Your task to perform on an android device: delete the emails in spam in the gmail app Image 0: 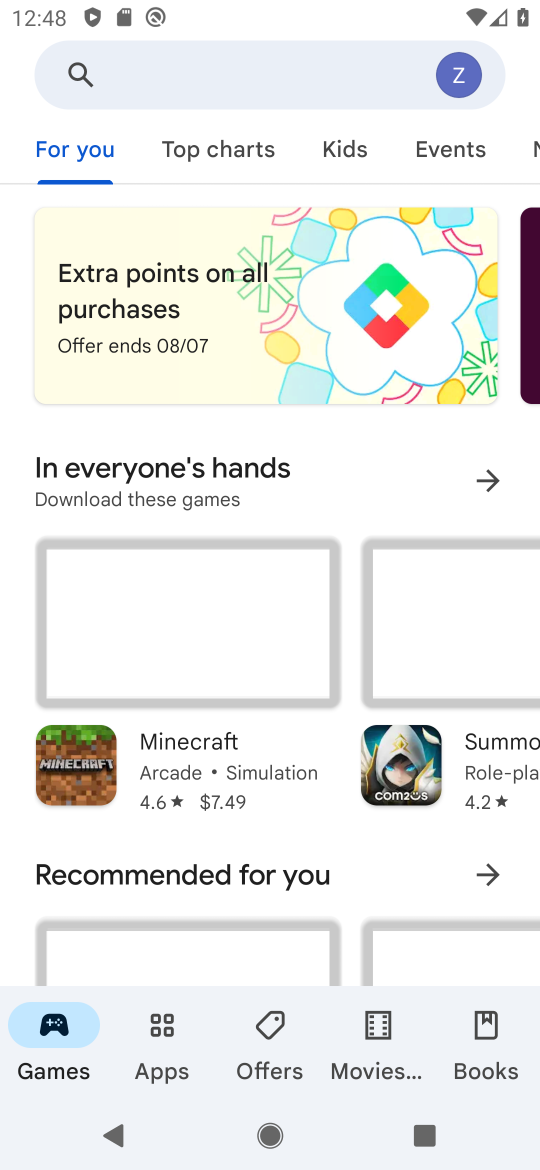
Step 0: press home button
Your task to perform on an android device: delete the emails in spam in the gmail app Image 1: 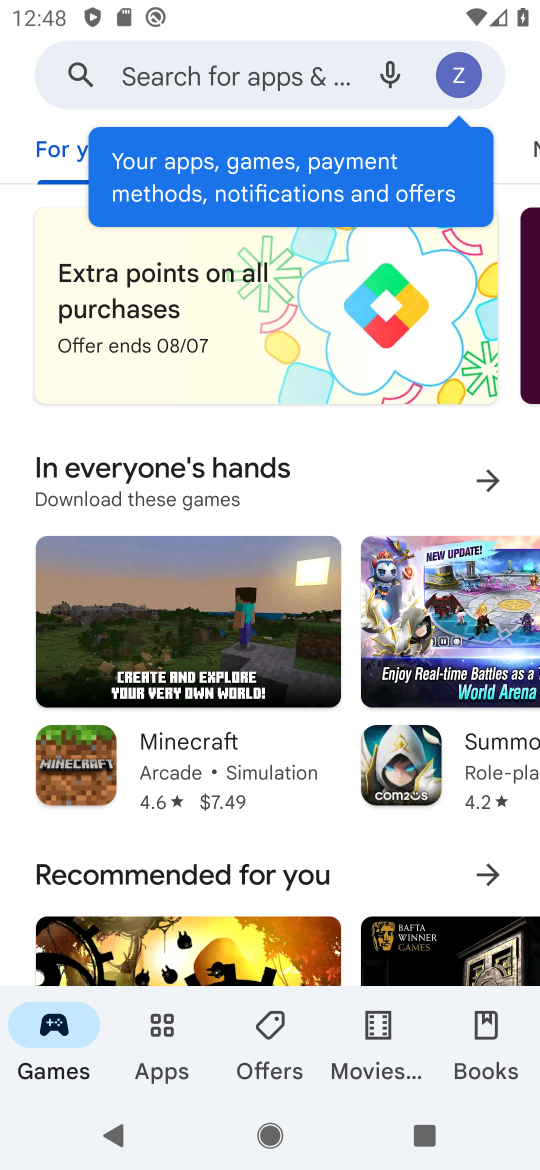
Step 1: press home button
Your task to perform on an android device: delete the emails in spam in the gmail app Image 2: 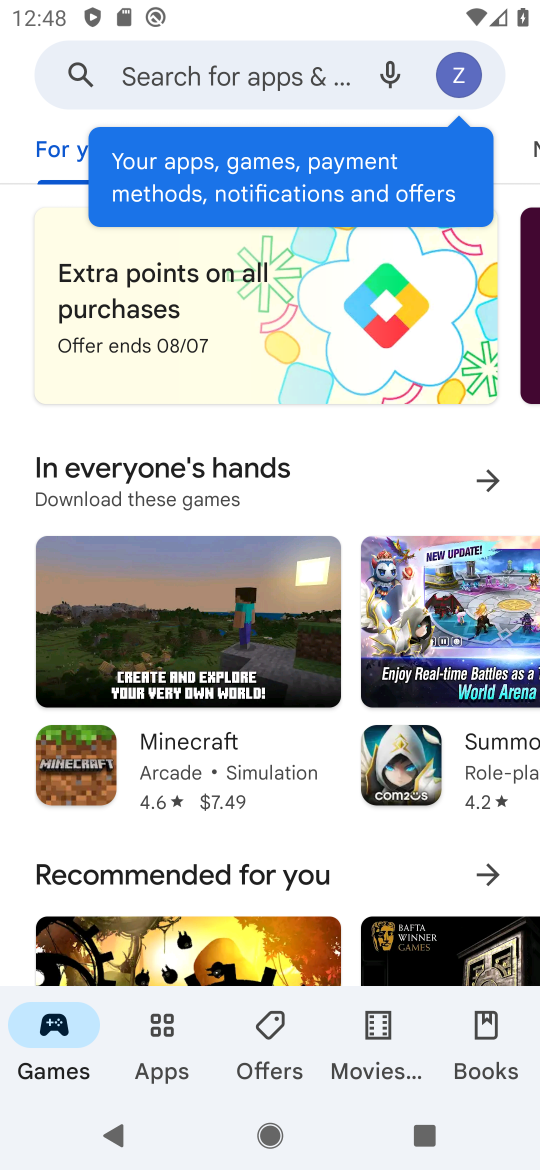
Step 2: click (408, 298)
Your task to perform on an android device: delete the emails in spam in the gmail app Image 3: 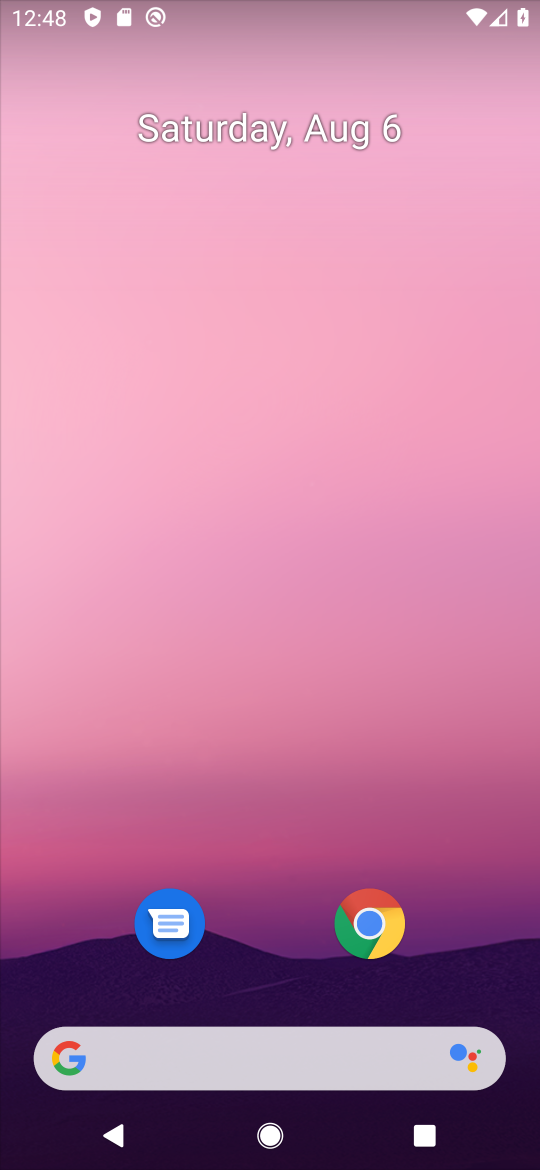
Step 3: drag from (294, 965) to (303, 273)
Your task to perform on an android device: delete the emails in spam in the gmail app Image 4: 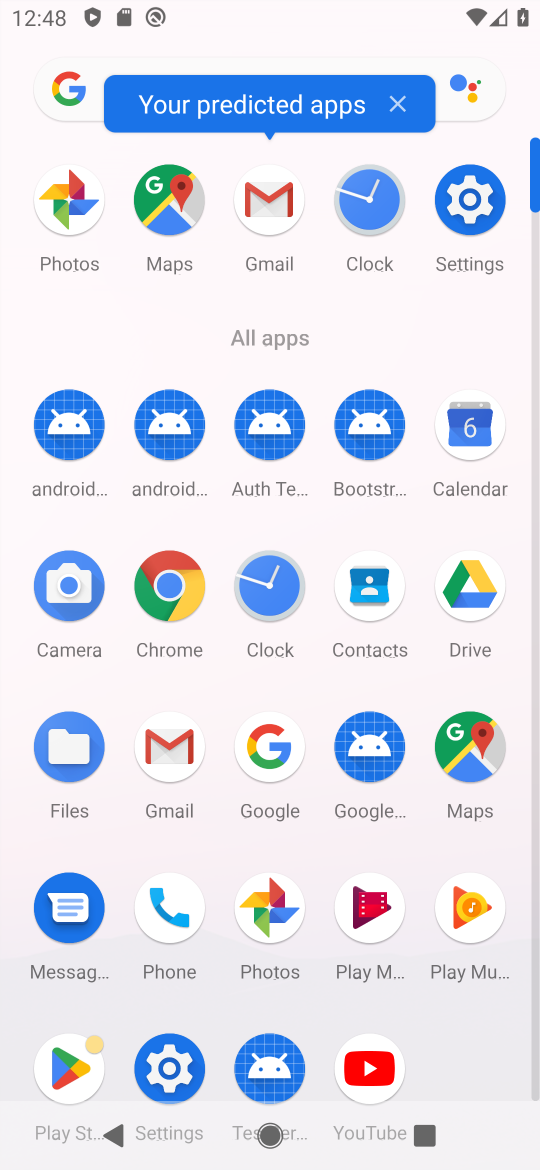
Step 4: drag from (310, 942) to (326, 339)
Your task to perform on an android device: delete the emails in spam in the gmail app Image 5: 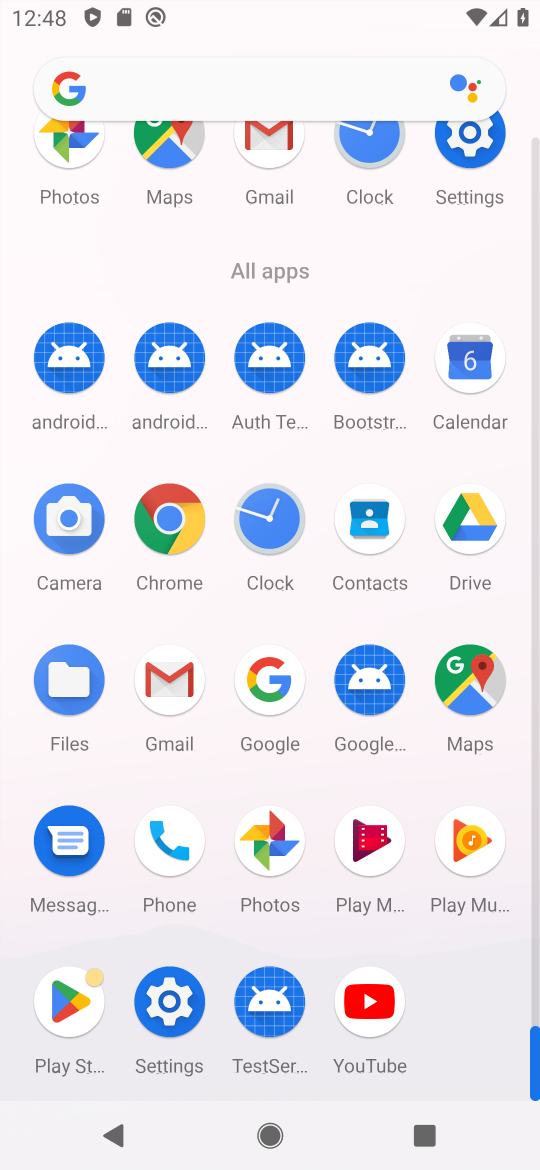
Step 5: drag from (326, 910) to (304, 261)
Your task to perform on an android device: delete the emails in spam in the gmail app Image 6: 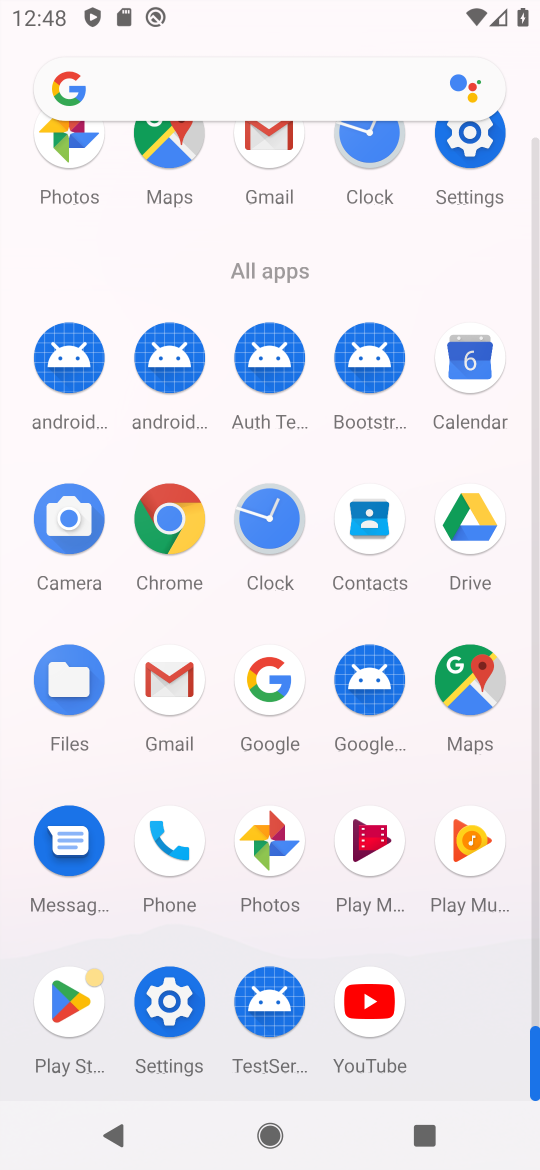
Step 6: click (168, 684)
Your task to perform on an android device: delete the emails in spam in the gmail app Image 7: 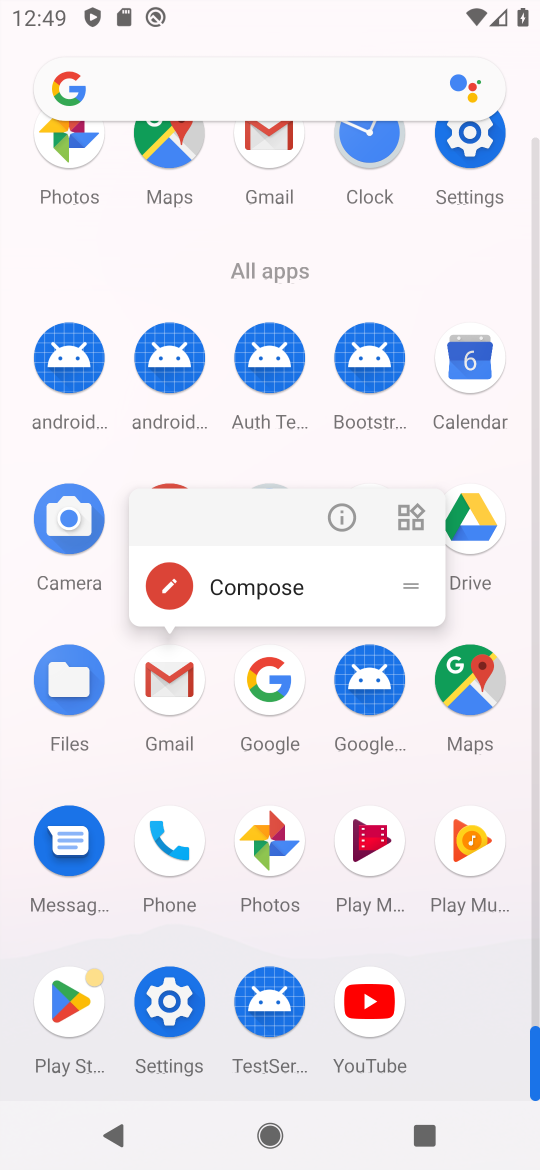
Step 7: click (341, 515)
Your task to perform on an android device: delete the emails in spam in the gmail app Image 8: 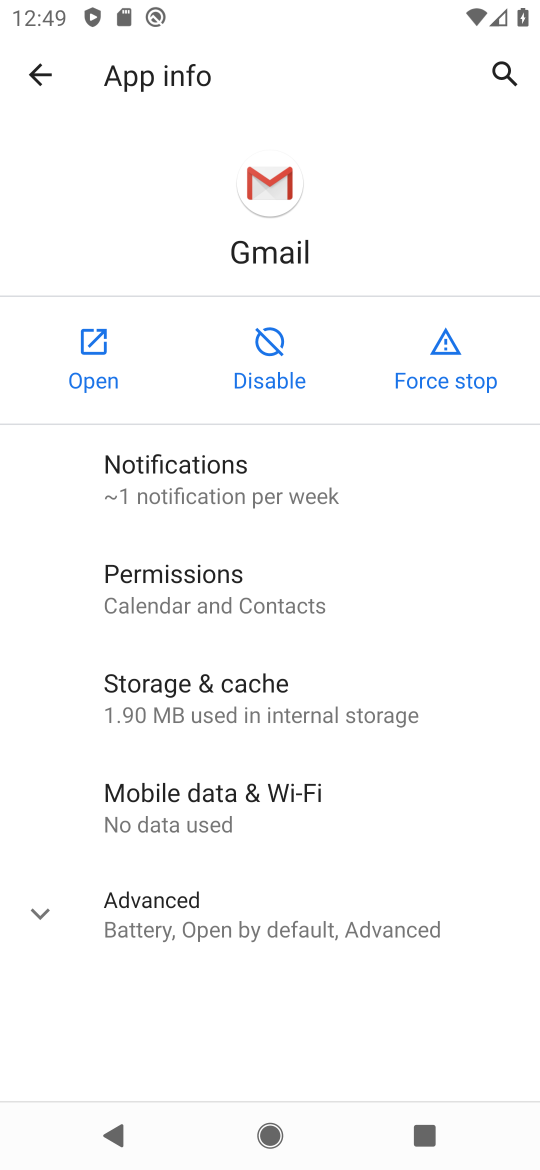
Step 8: click (85, 353)
Your task to perform on an android device: delete the emails in spam in the gmail app Image 9: 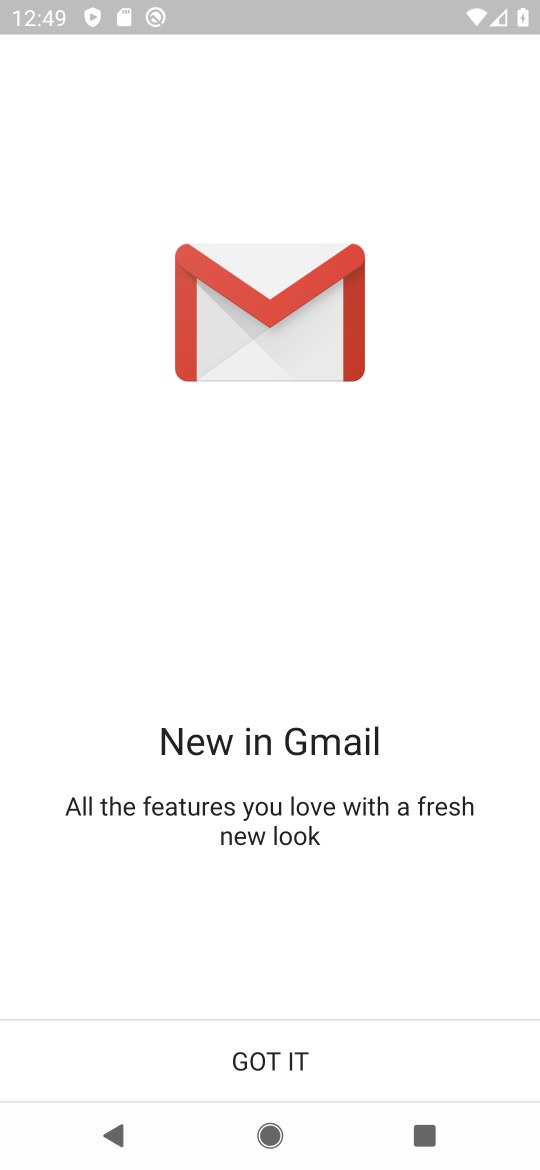
Step 9: click (290, 1072)
Your task to perform on an android device: delete the emails in spam in the gmail app Image 10: 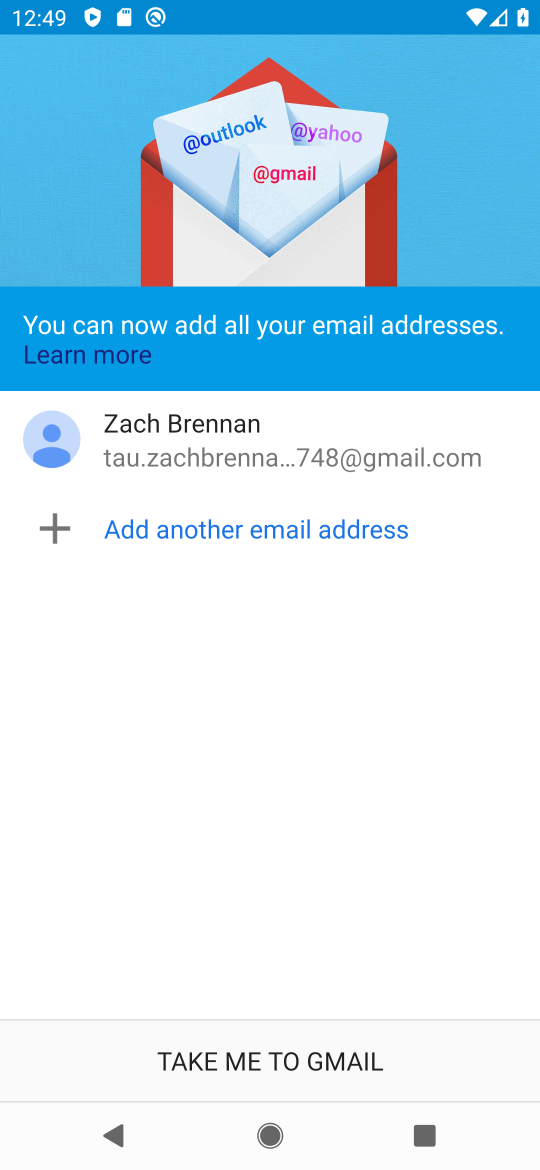
Step 10: click (262, 1056)
Your task to perform on an android device: delete the emails in spam in the gmail app Image 11: 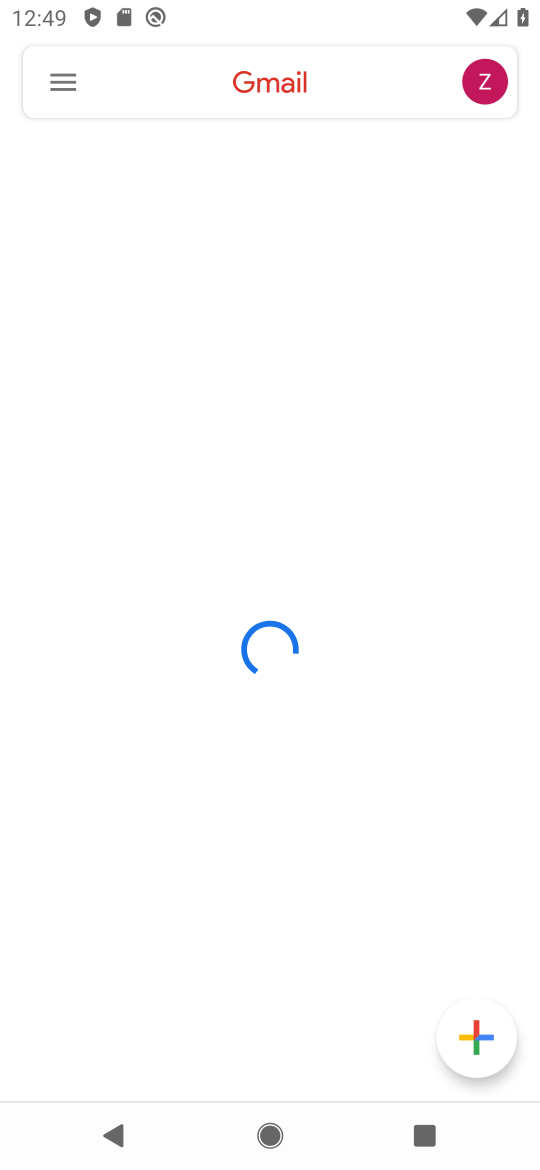
Step 11: click (73, 89)
Your task to perform on an android device: delete the emails in spam in the gmail app Image 12: 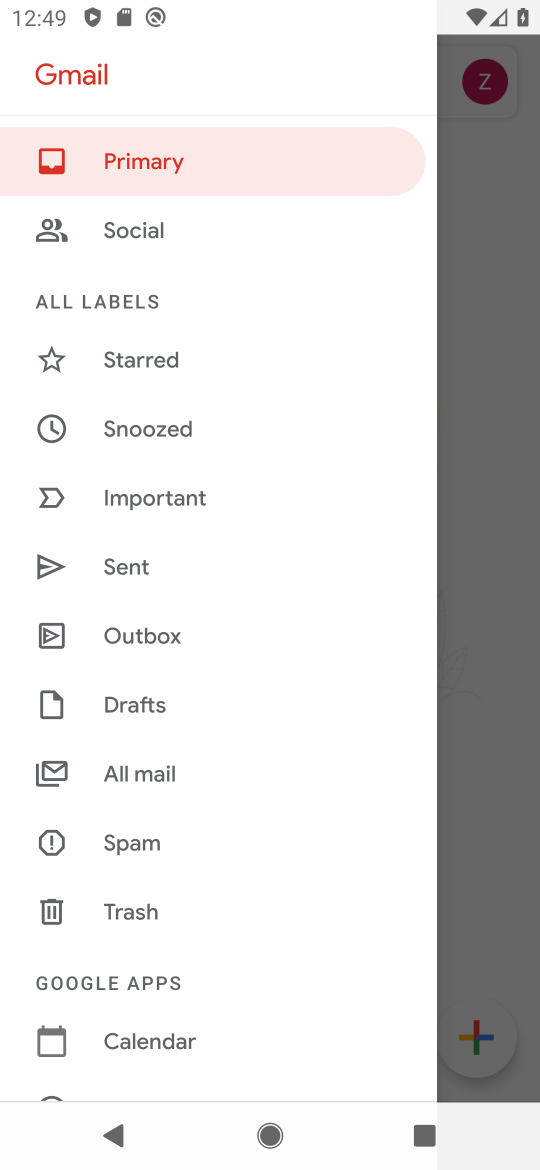
Step 12: click (147, 850)
Your task to perform on an android device: delete the emails in spam in the gmail app Image 13: 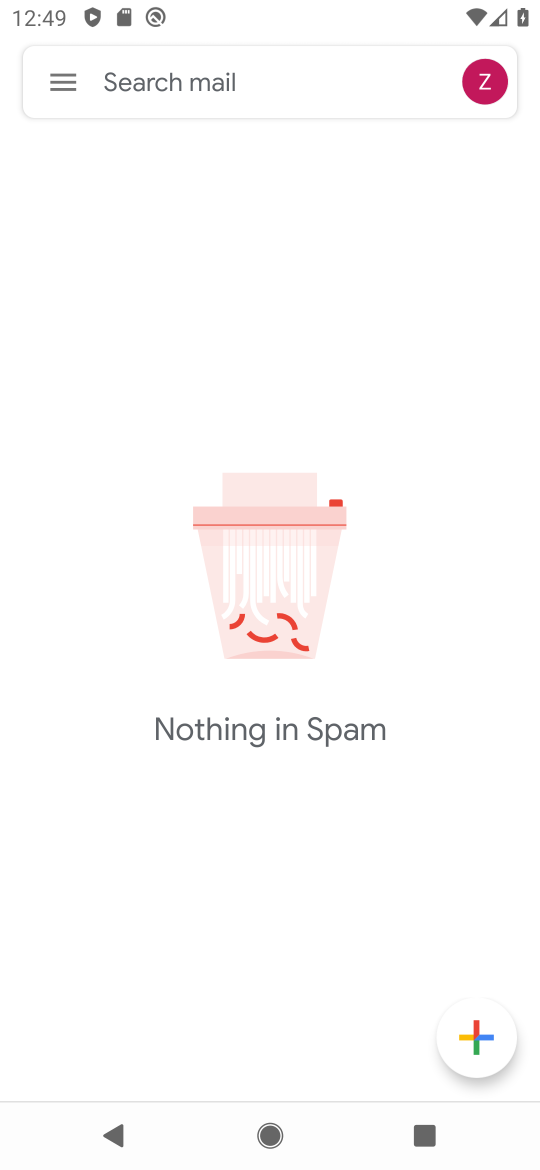
Step 13: click (84, 97)
Your task to perform on an android device: delete the emails in spam in the gmail app Image 14: 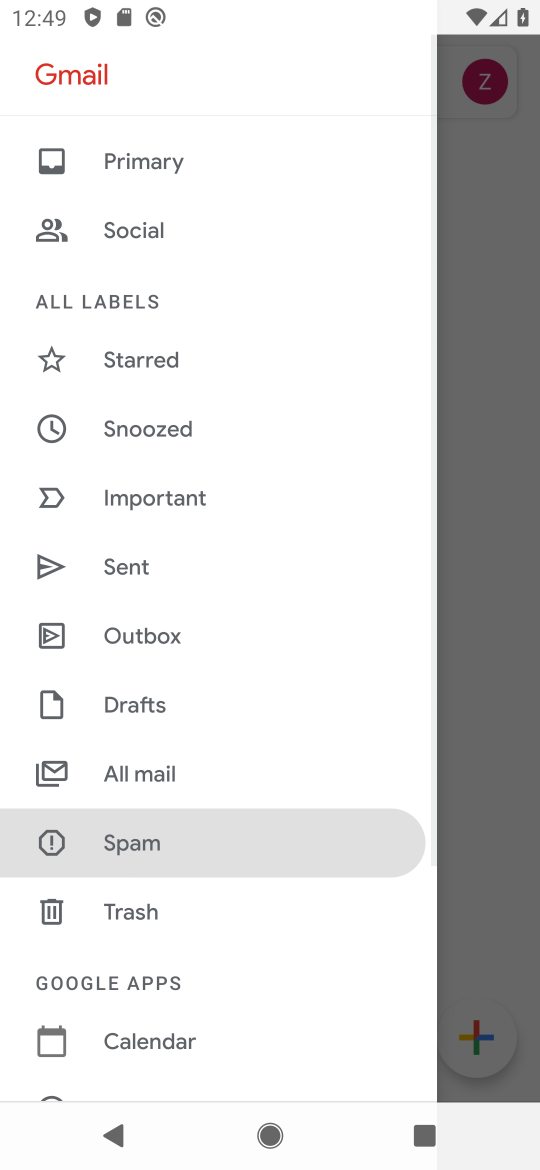
Step 14: click (123, 842)
Your task to perform on an android device: delete the emails in spam in the gmail app Image 15: 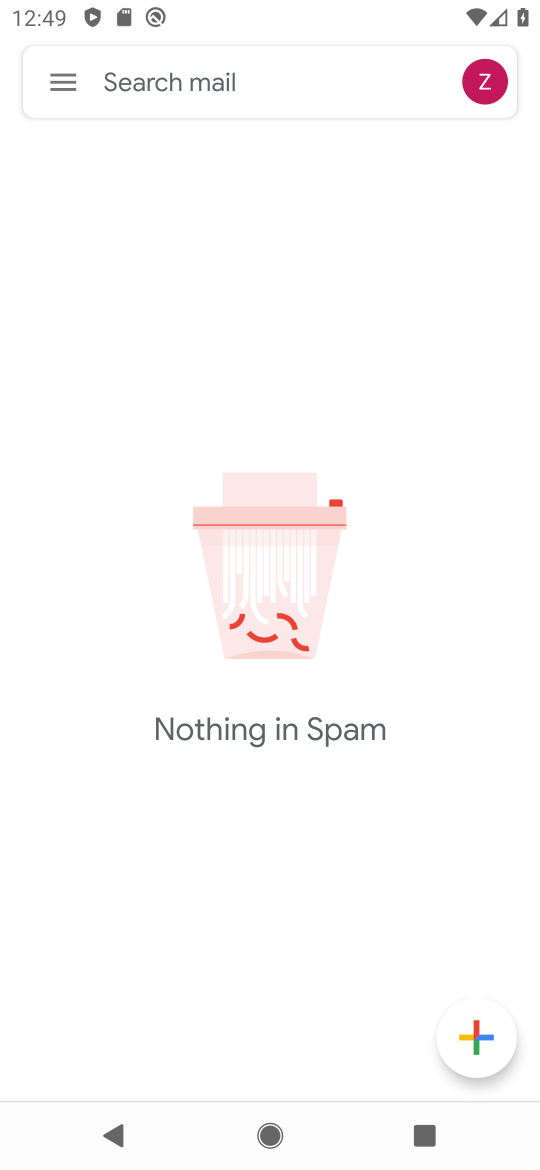
Step 15: click (479, 725)
Your task to perform on an android device: delete the emails in spam in the gmail app Image 16: 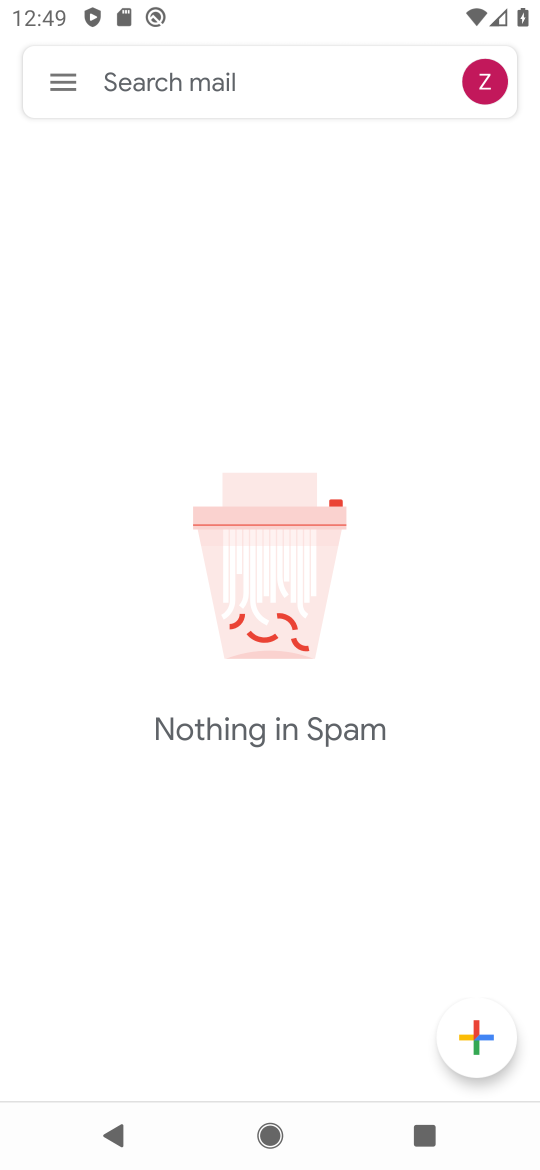
Step 16: click (298, 513)
Your task to perform on an android device: delete the emails in spam in the gmail app Image 17: 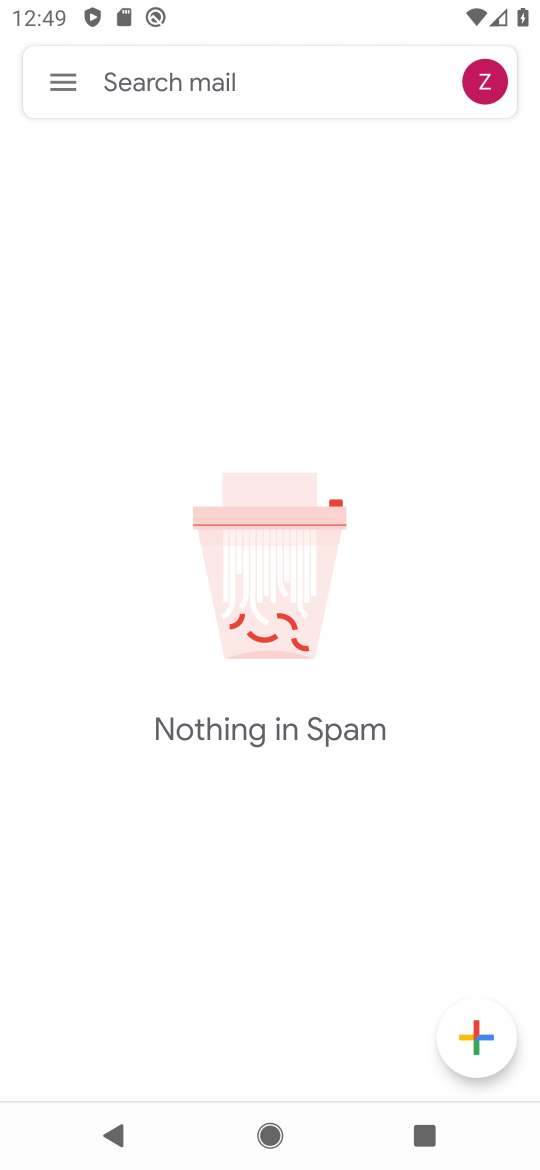
Step 17: drag from (401, 701) to (409, 582)
Your task to perform on an android device: delete the emails in spam in the gmail app Image 18: 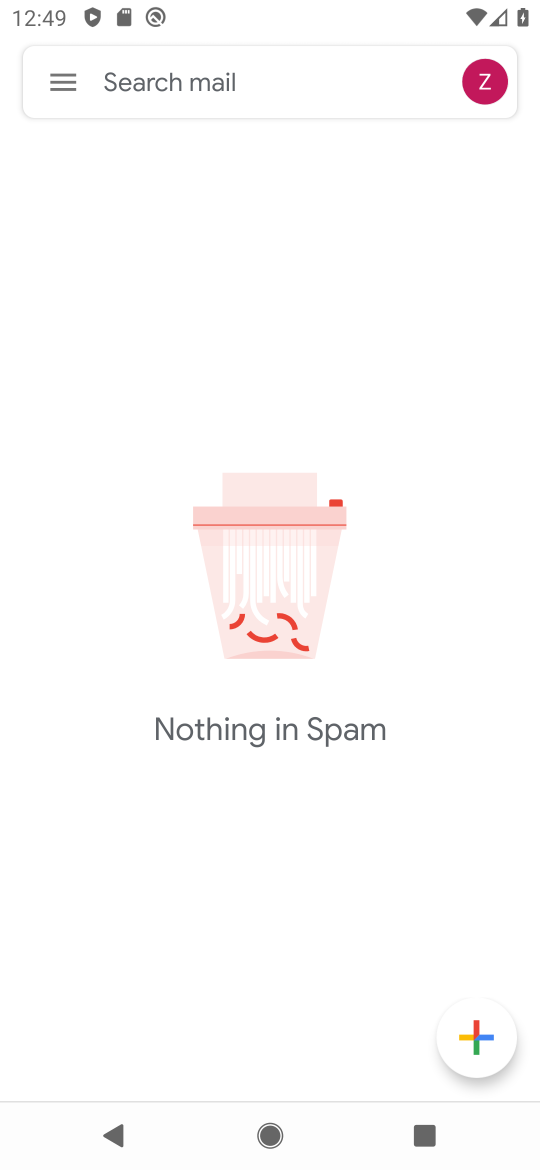
Step 18: drag from (444, 706) to (428, 491)
Your task to perform on an android device: delete the emails in spam in the gmail app Image 19: 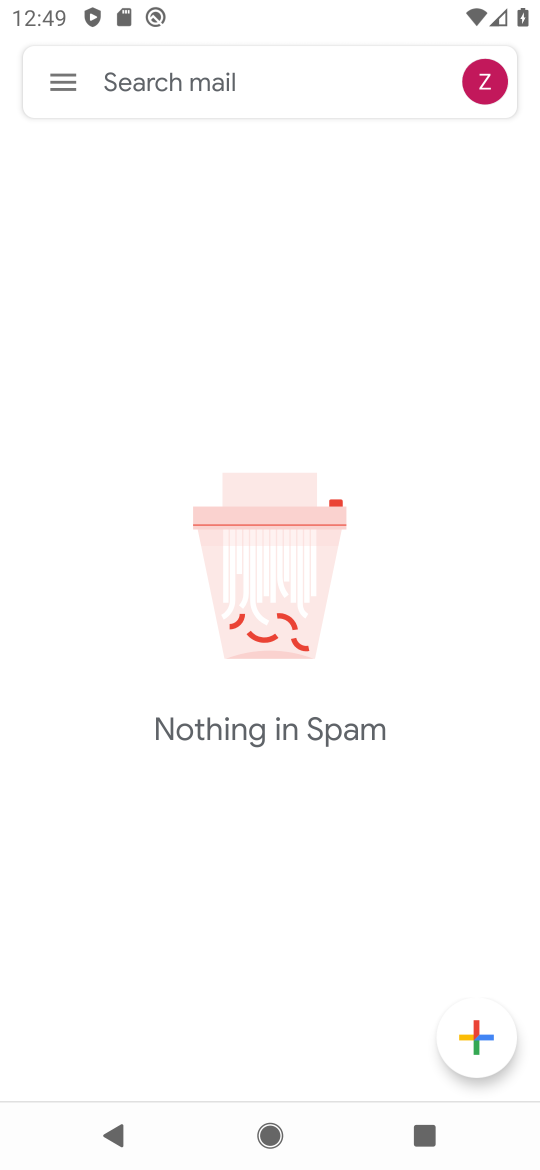
Step 19: drag from (406, 784) to (418, 438)
Your task to perform on an android device: delete the emails in spam in the gmail app Image 20: 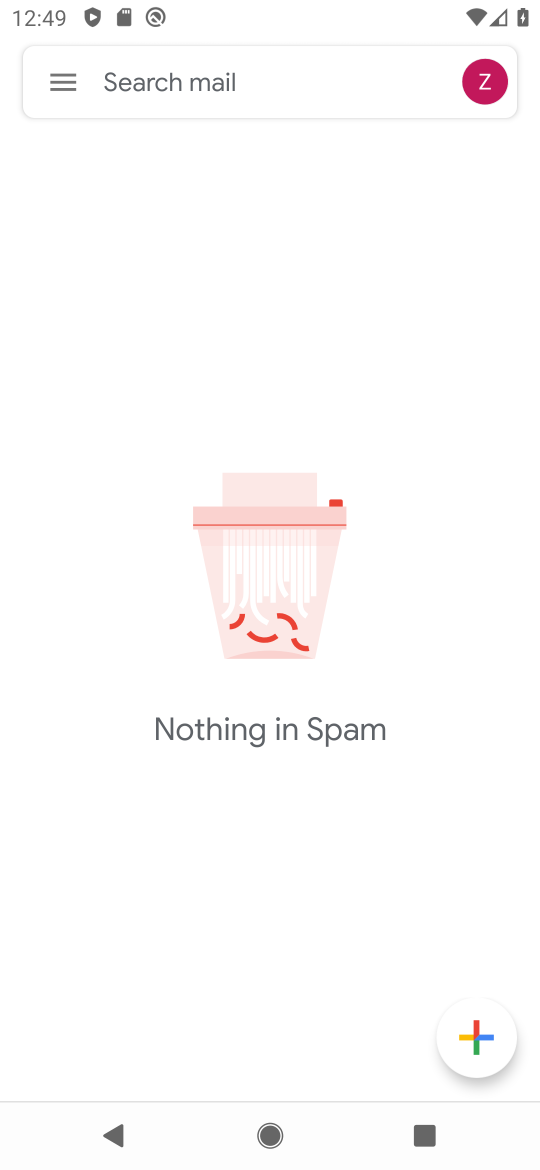
Step 20: drag from (134, 466) to (402, 222)
Your task to perform on an android device: delete the emails in spam in the gmail app Image 21: 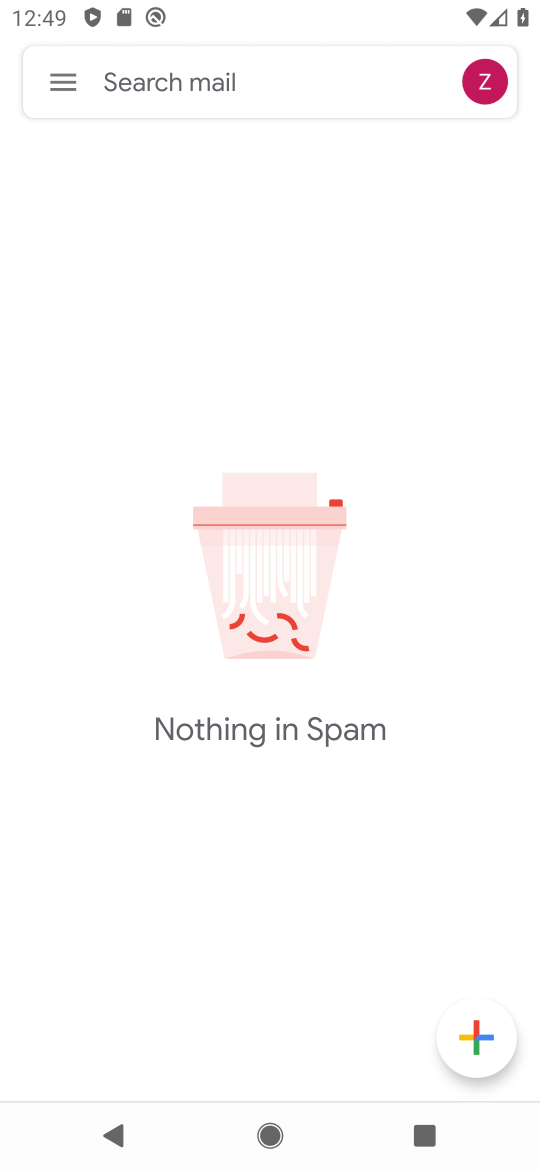
Step 21: drag from (254, 945) to (515, 272)
Your task to perform on an android device: delete the emails in spam in the gmail app Image 22: 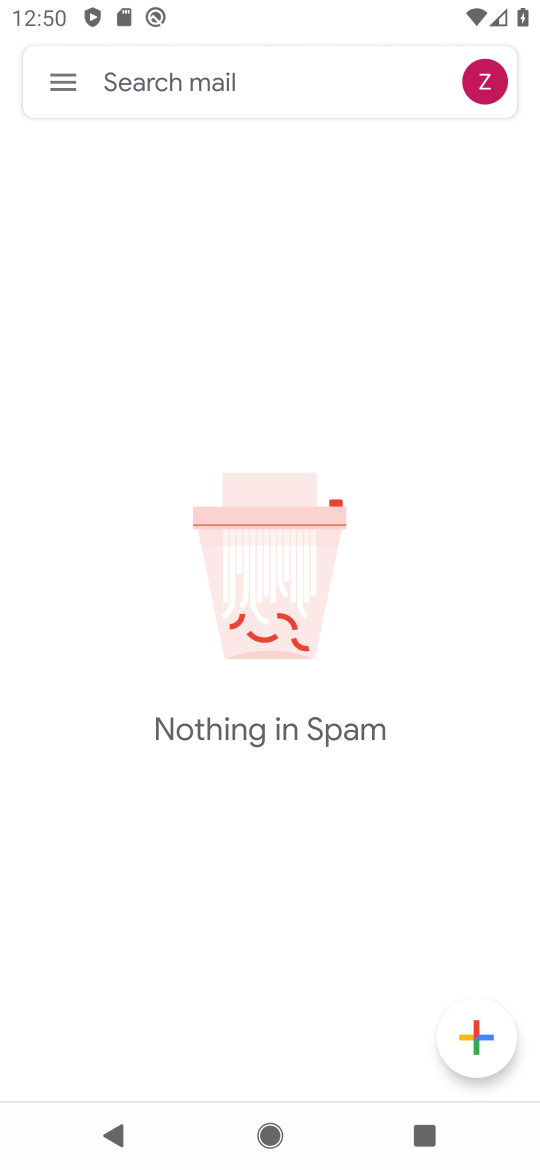
Step 22: drag from (321, 902) to (232, 460)
Your task to perform on an android device: delete the emails in spam in the gmail app Image 23: 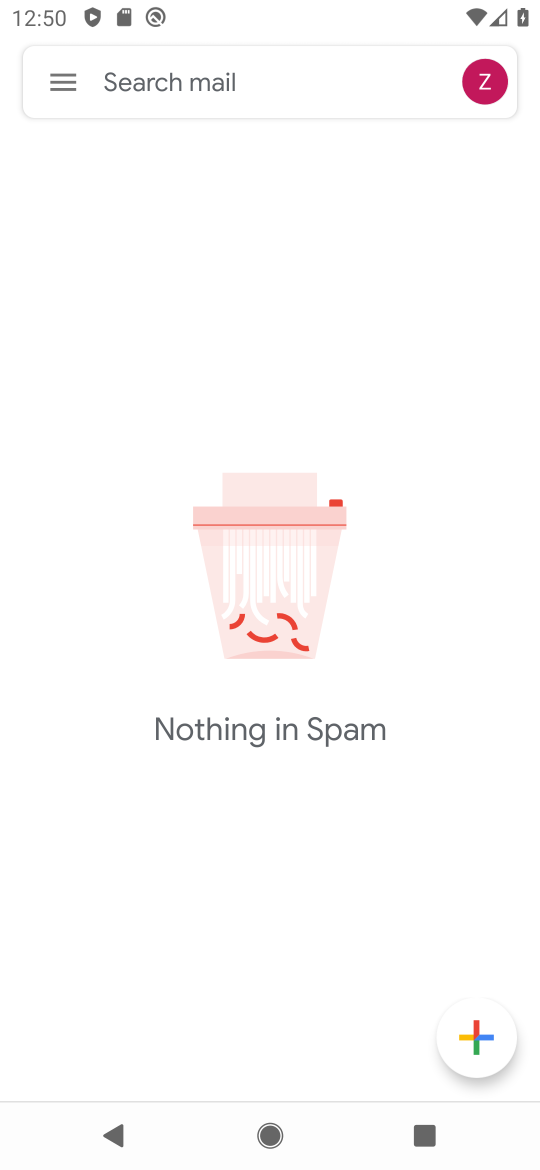
Step 23: drag from (360, 968) to (354, 385)
Your task to perform on an android device: delete the emails in spam in the gmail app Image 24: 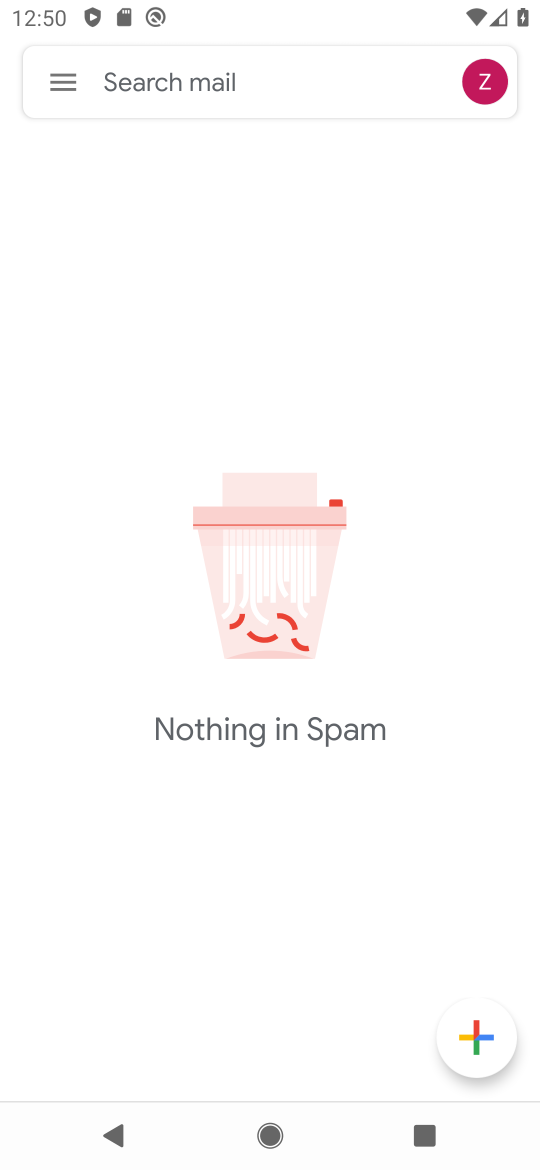
Step 24: click (300, 405)
Your task to perform on an android device: delete the emails in spam in the gmail app Image 25: 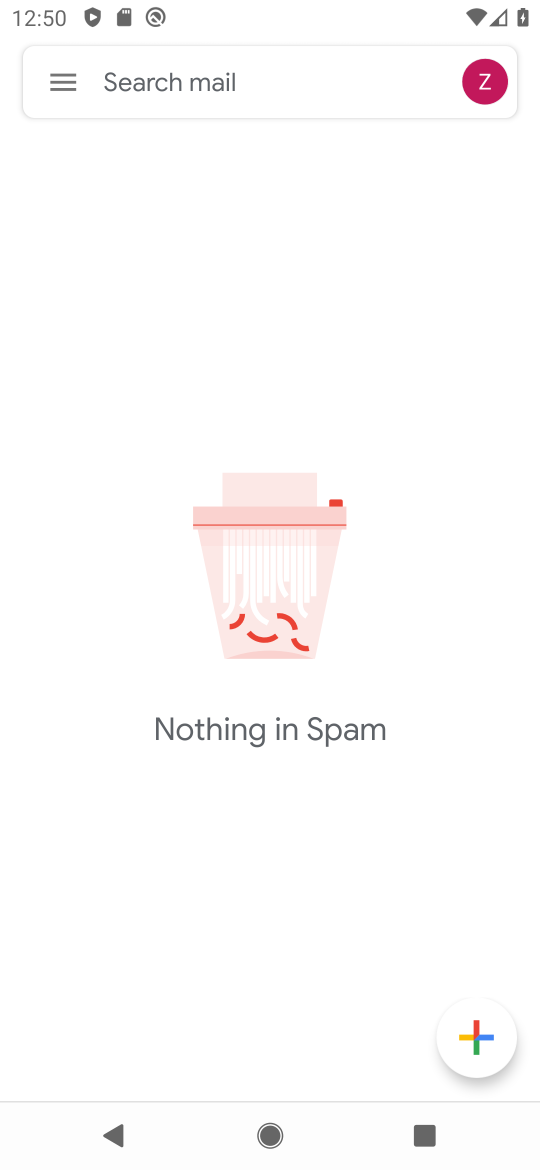
Step 25: click (53, 78)
Your task to perform on an android device: delete the emails in spam in the gmail app Image 26: 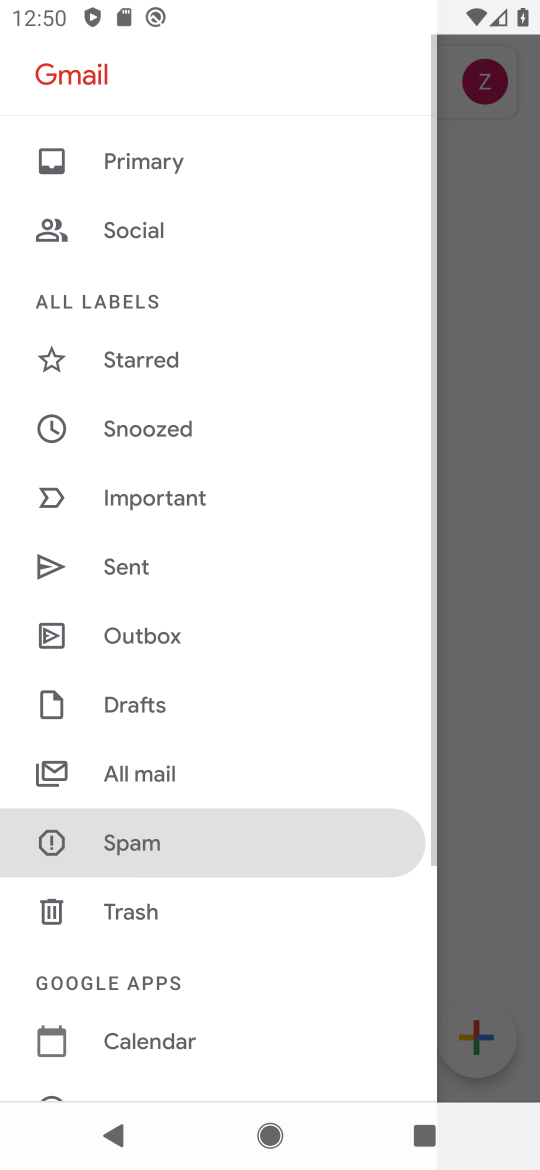
Step 26: drag from (259, 920) to (335, 523)
Your task to perform on an android device: delete the emails in spam in the gmail app Image 27: 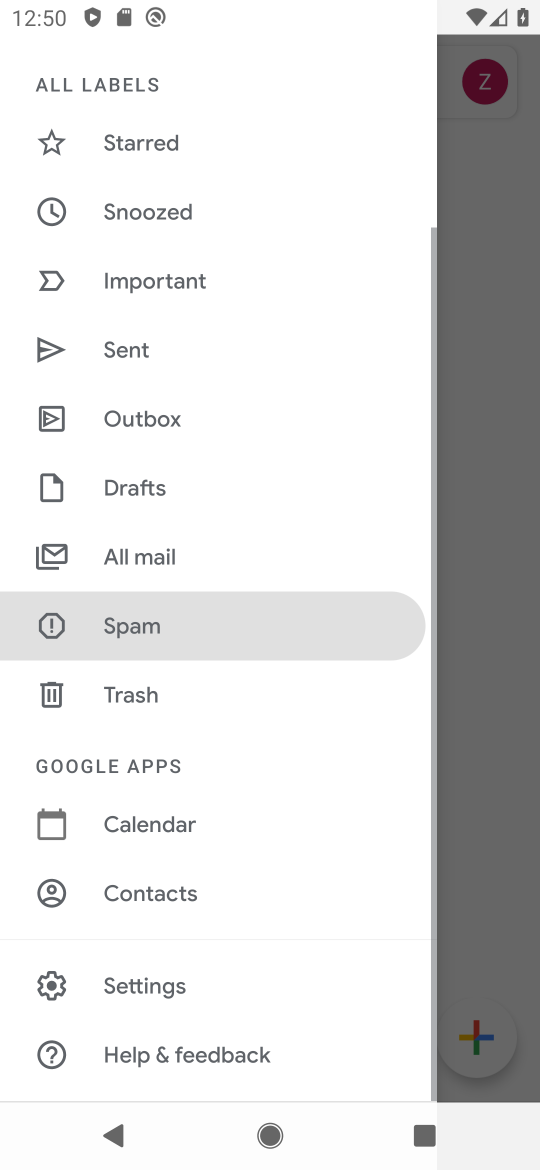
Step 27: drag from (274, 860) to (284, 648)
Your task to perform on an android device: delete the emails in spam in the gmail app Image 28: 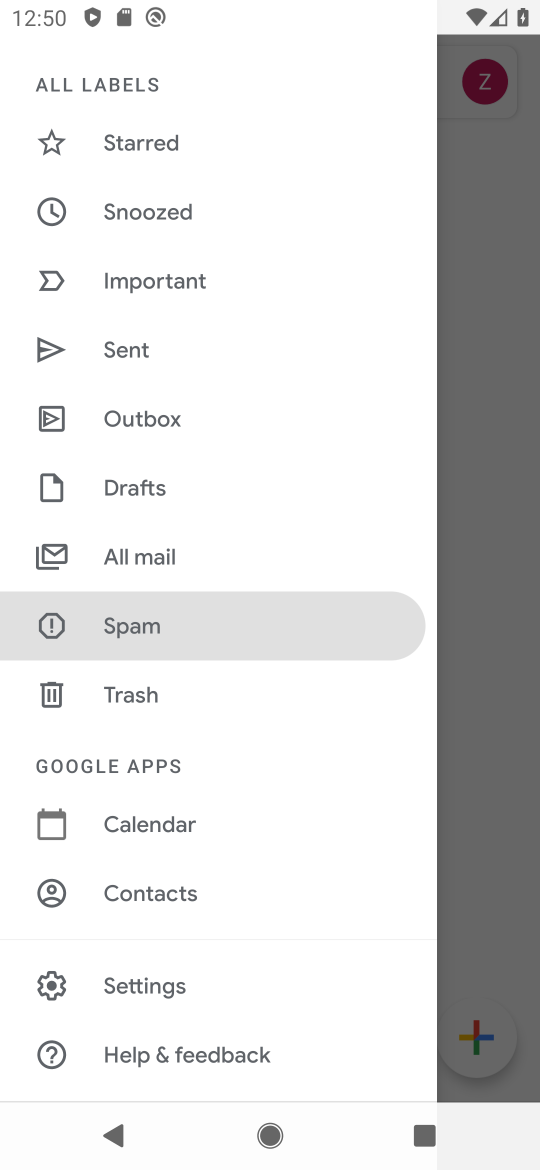
Step 28: drag from (186, 209) to (255, 799)
Your task to perform on an android device: delete the emails in spam in the gmail app Image 29: 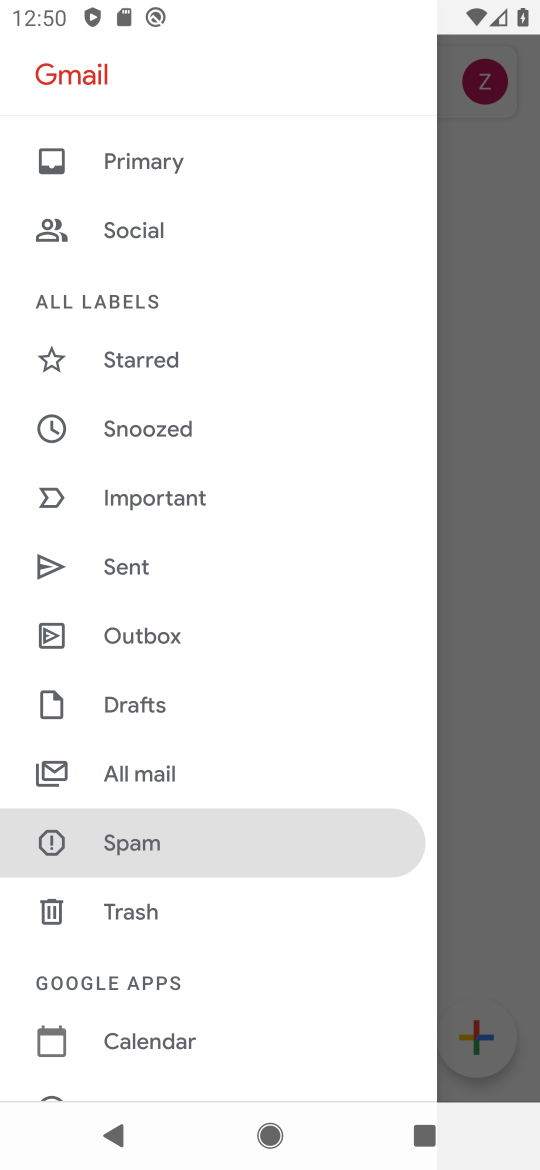
Step 29: click (98, 841)
Your task to perform on an android device: delete the emails in spam in the gmail app Image 30: 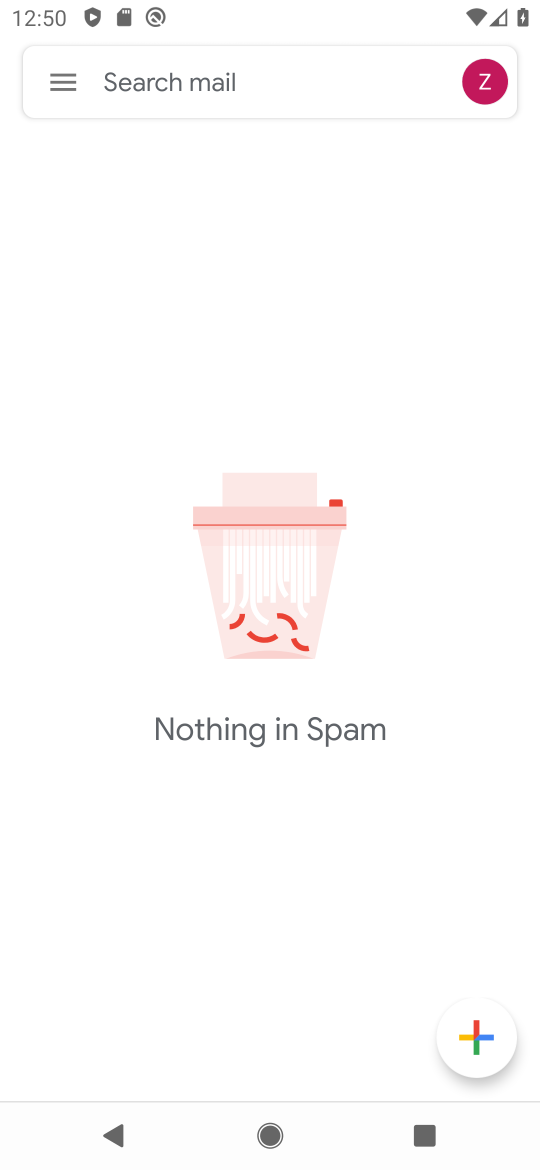
Step 30: task complete